Your task to perform on an android device: Show the shopping cart on walmart. Image 0: 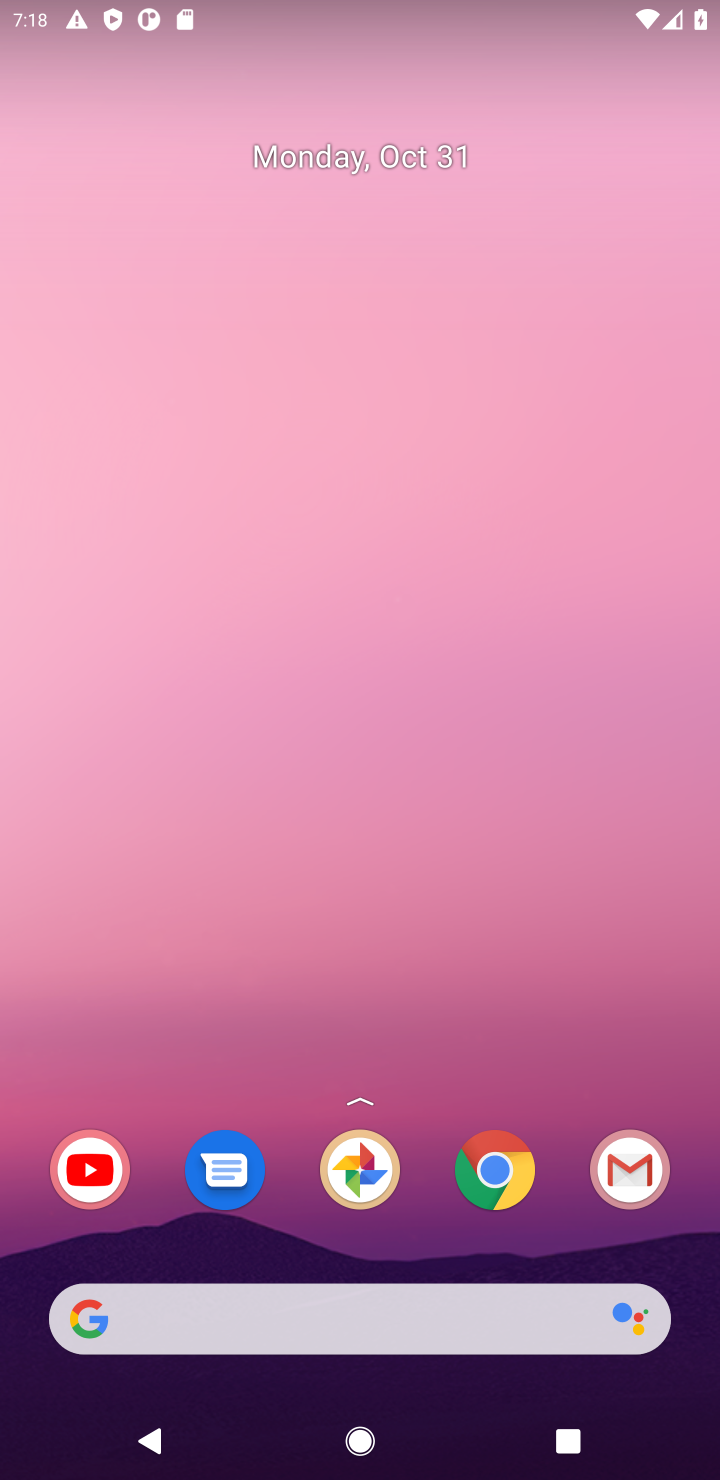
Step 0: click (503, 1198)
Your task to perform on an android device: Show the shopping cart on walmart. Image 1: 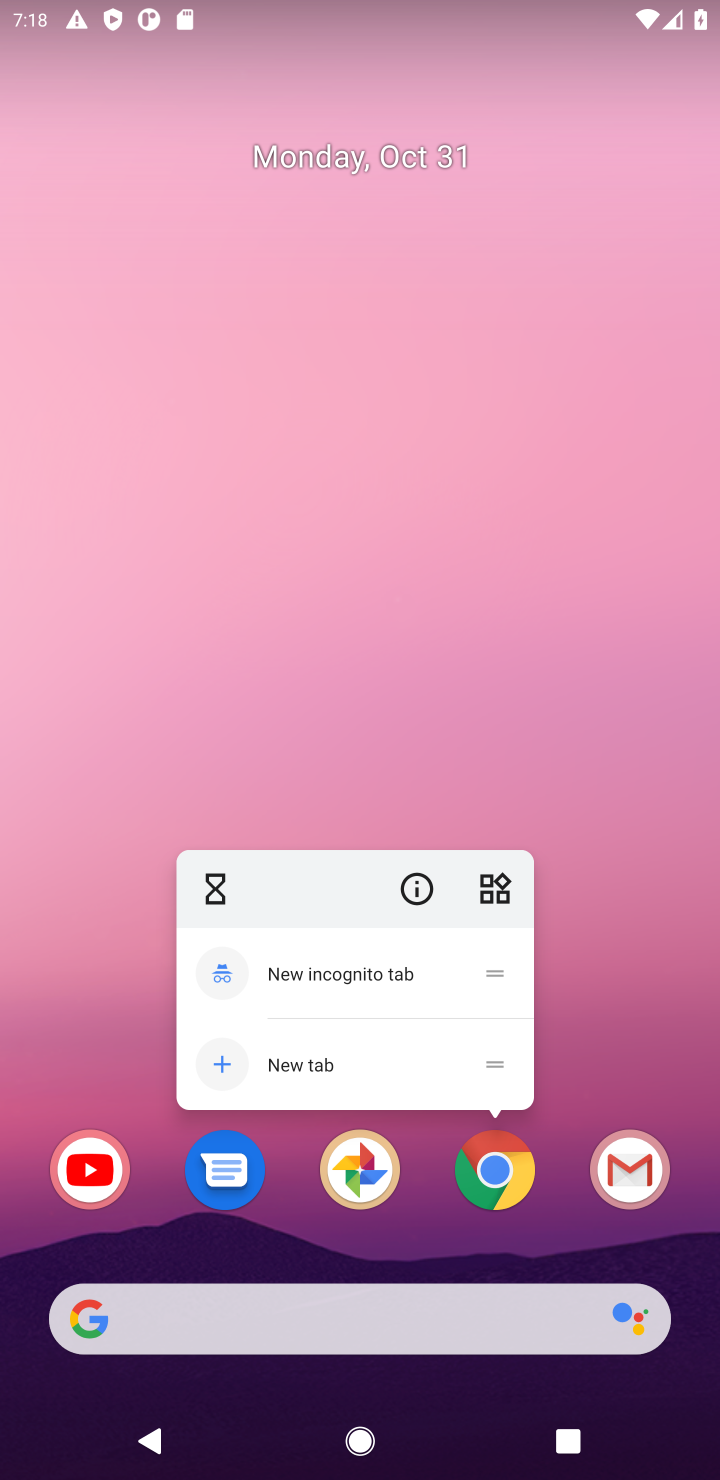
Step 1: click (505, 1202)
Your task to perform on an android device: Show the shopping cart on walmart. Image 2: 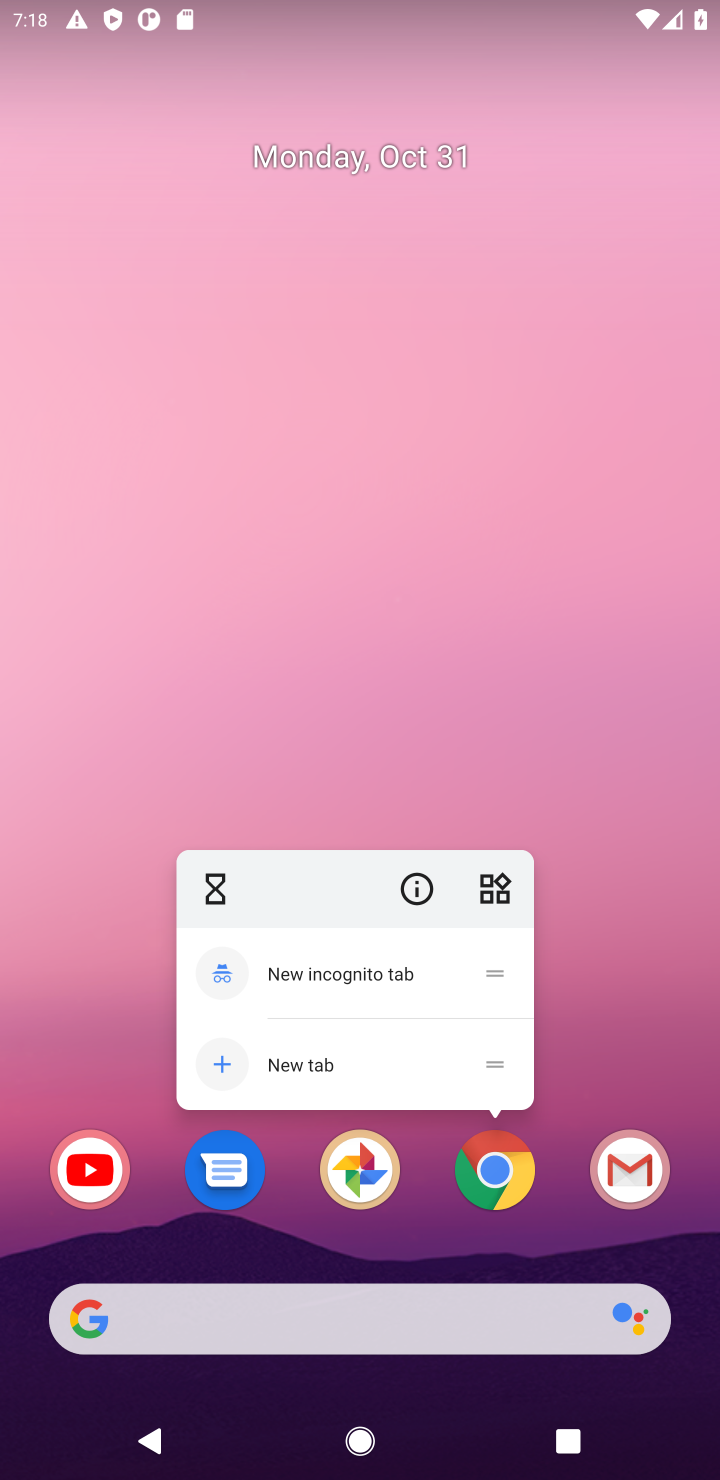
Step 2: click (496, 1177)
Your task to perform on an android device: Show the shopping cart on walmart. Image 3: 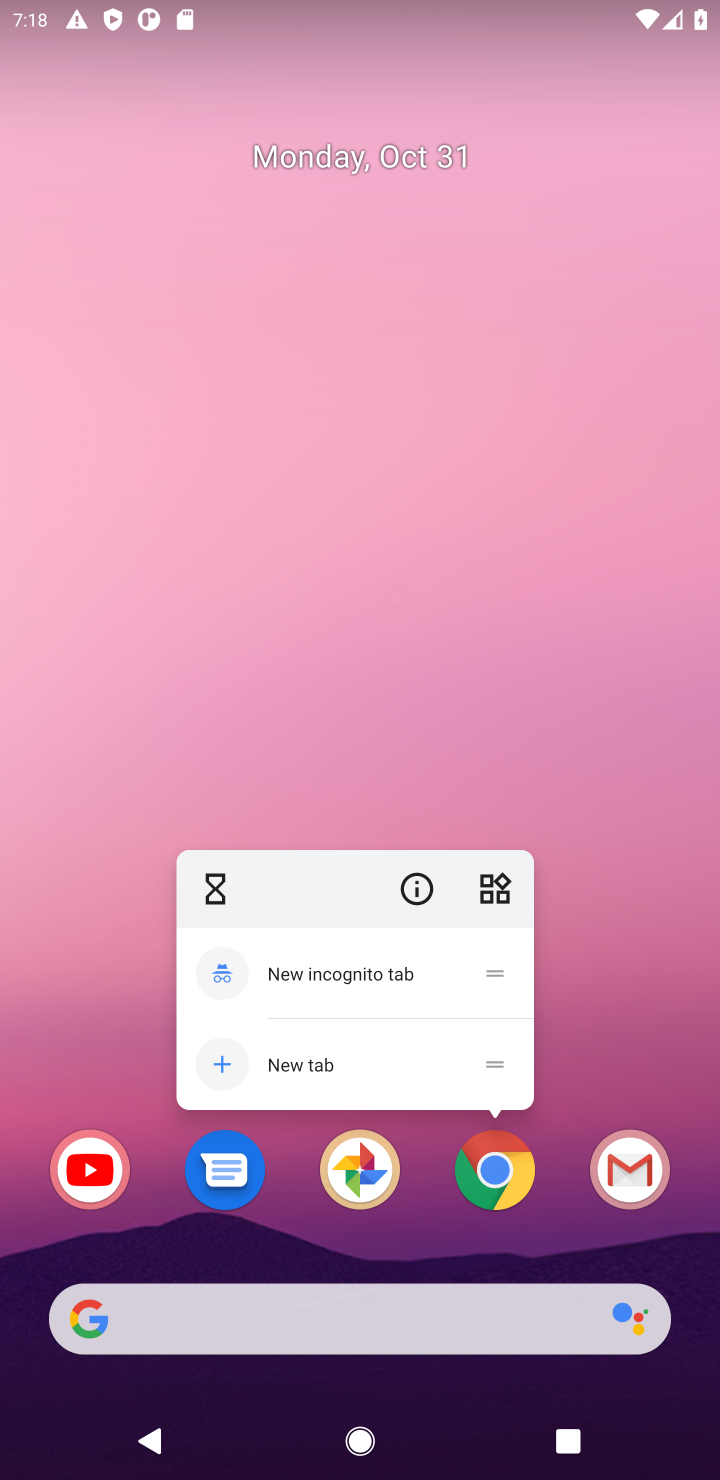
Step 3: click (496, 1177)
Your task to perform on an android device: Show the shopping cart on walmart. Image 4: 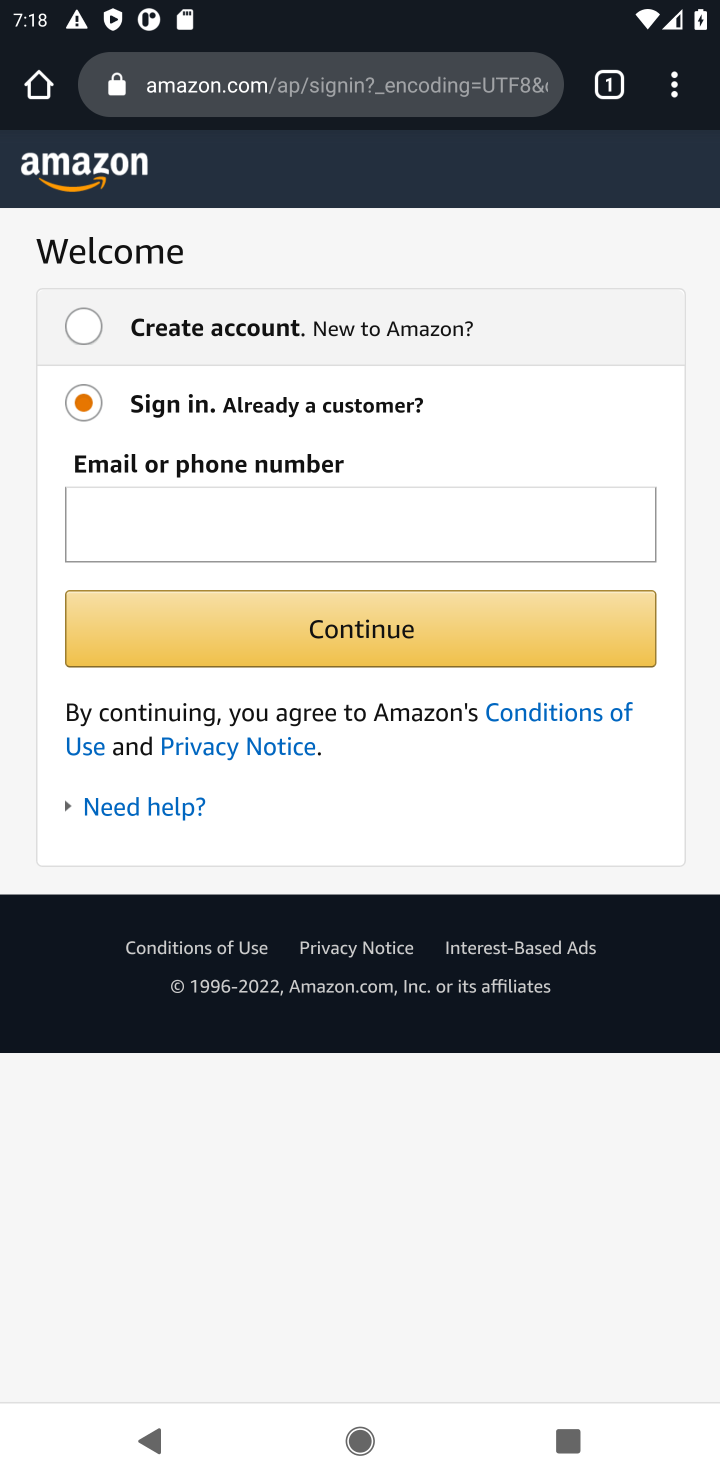
Step 4: click (330, 90)
Your task to perform on an android device: Show the shopping cart on walmart. Image 5: 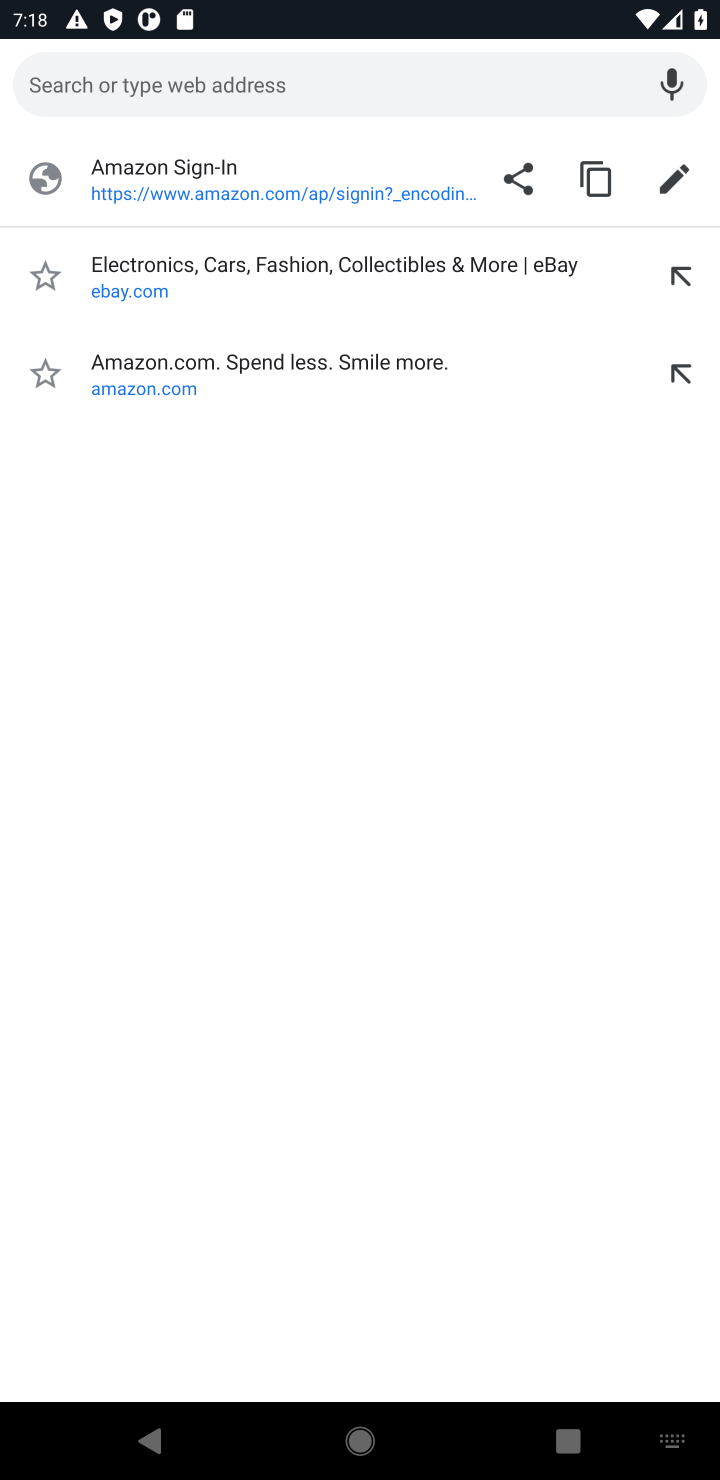
Step 5: type "walmart"
Your task to perform on an android device: Show the shopping cart on walmart. Image 6: 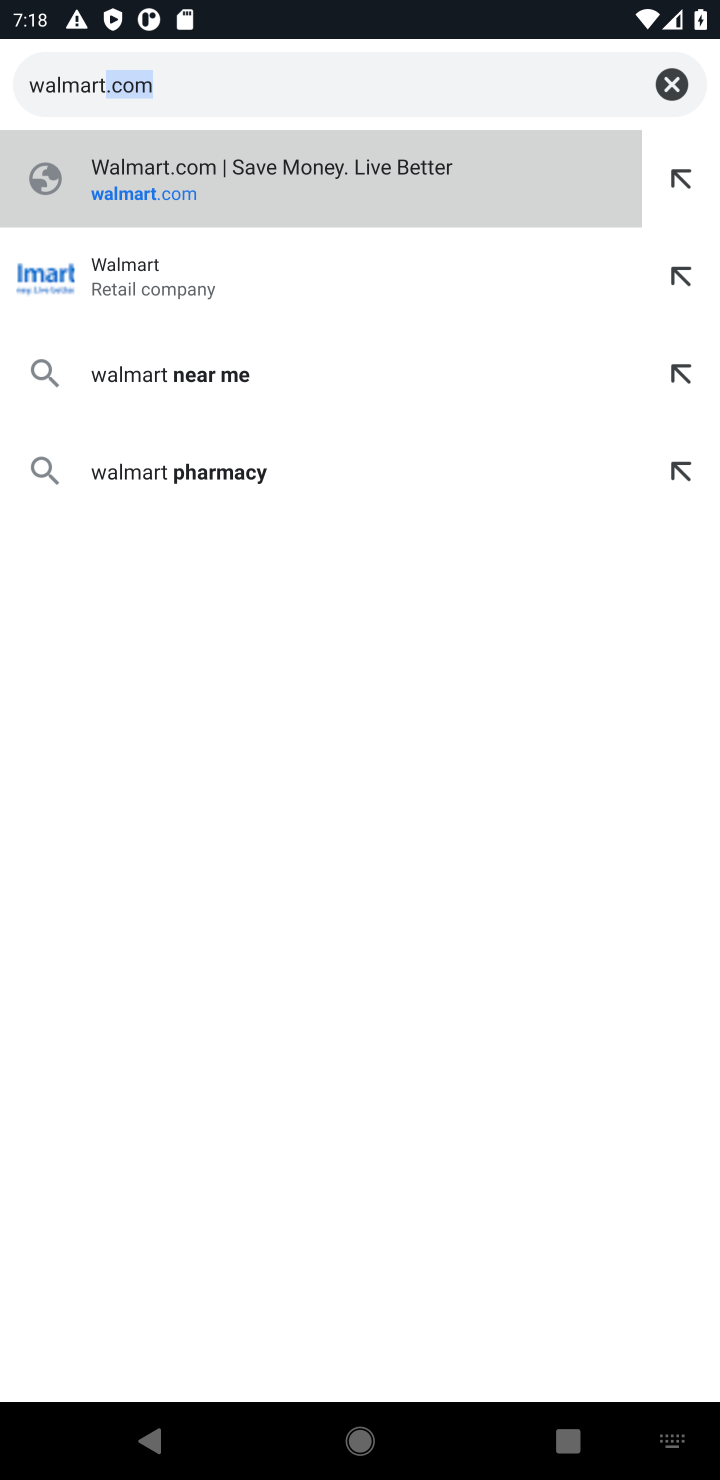
Step 6: press enter
Your task to perform on an android device: Show the shopping cart on walmart. Image 7: 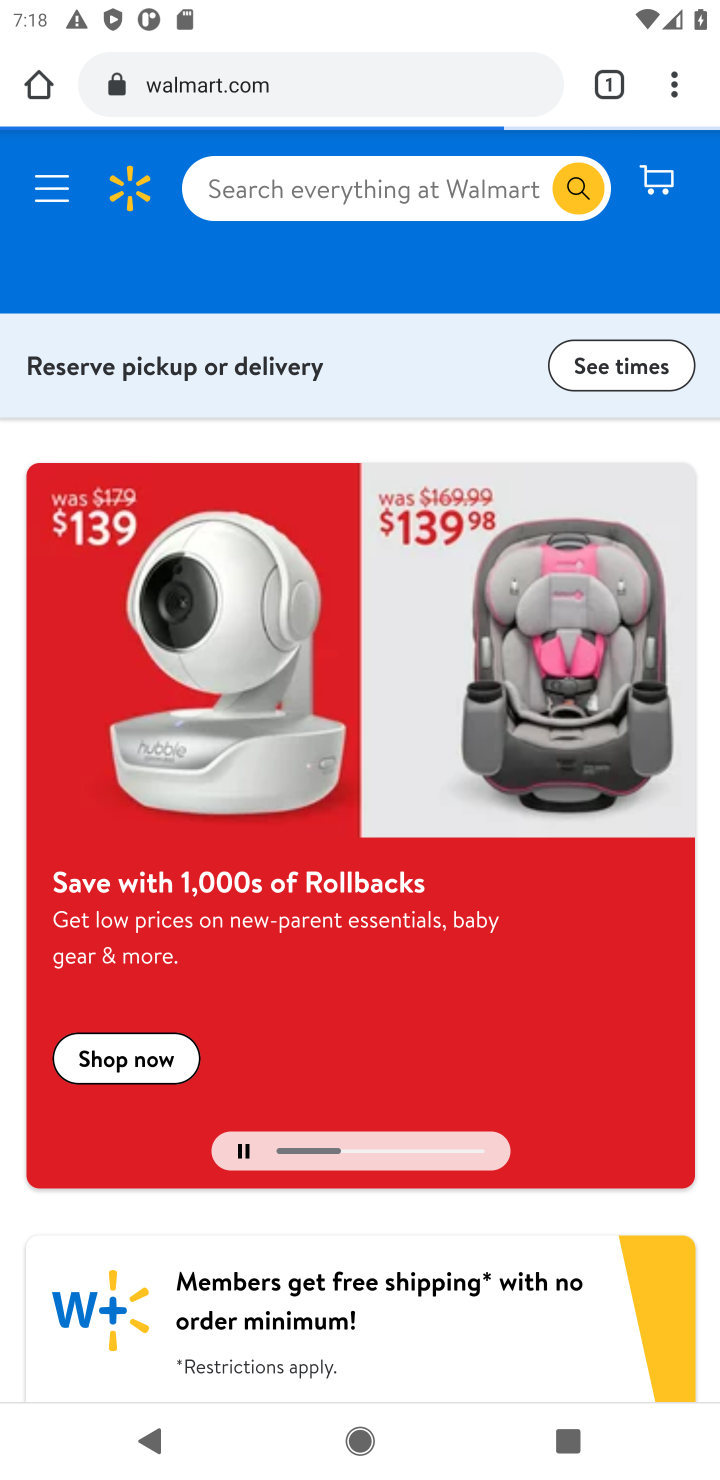
Step 7: click (664, 197)
Your task to perform on an android device: Show the shopping cart on walmart. Image 8: 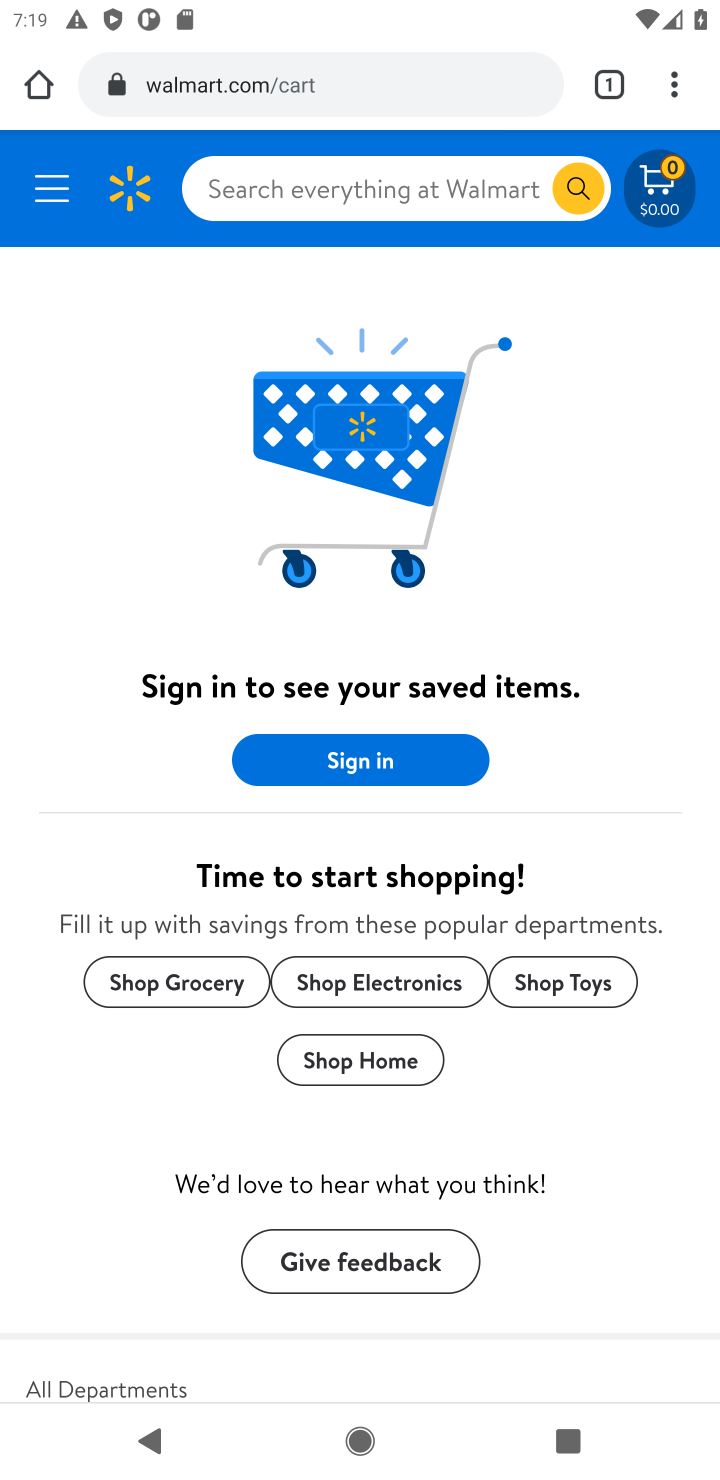
Step 8: task complete